Your task to perform on an android device: Search for the ikea sjalv lamp Image 0: 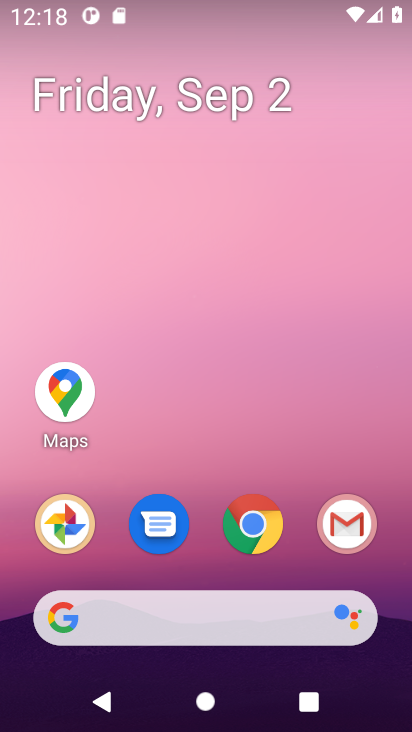
Step 0: press home button
Your task to perform on an android device: Search for the ikea sjalv lamp Image 1: 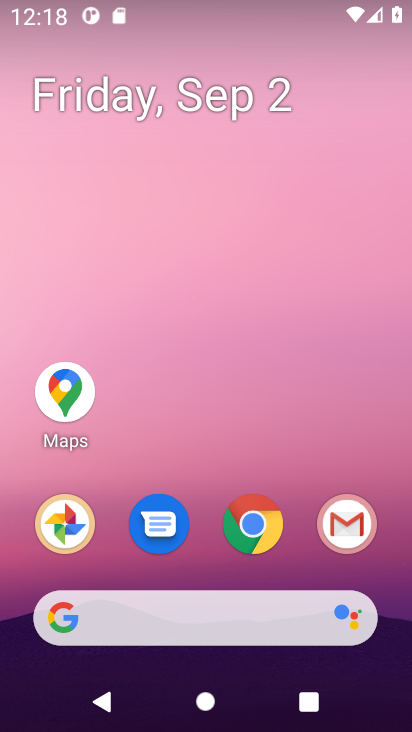
Step 1: click (270, 620)
Your task to perform on an android device: Search for the ikea sjalv lamp Image 2: 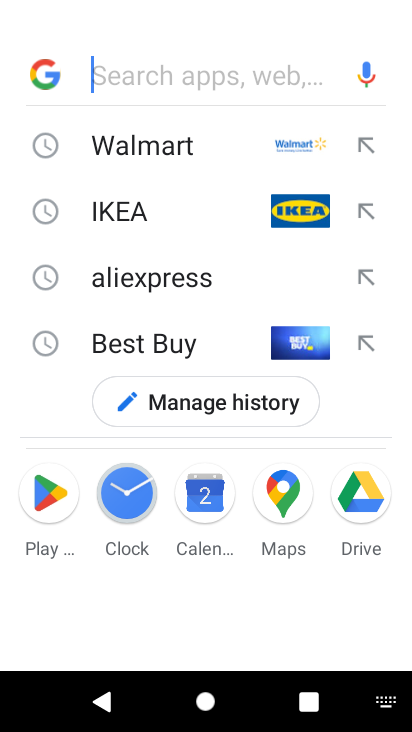
Step 2: click (173, 212)
Your task to perform on an android device: Search for the ikea sjalv lamp Image 3: 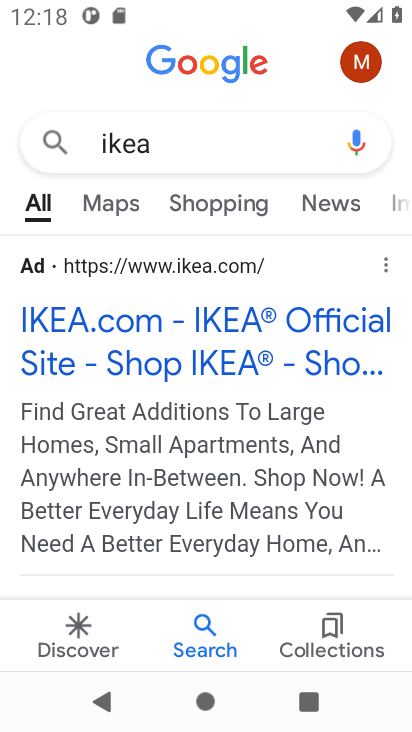
Step 3: click (212, 330)
Your task to perform on an android device: Search for the ikea sjalv lamp Image 4: 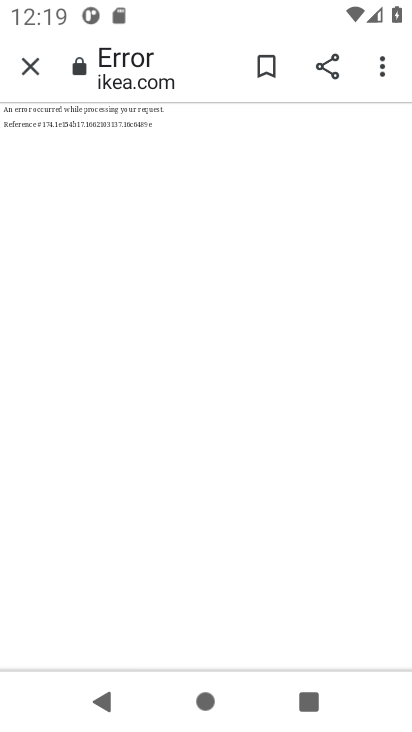
Step 4: task complete